Your task to perform on an android device: change alarm snooze length Image 0: 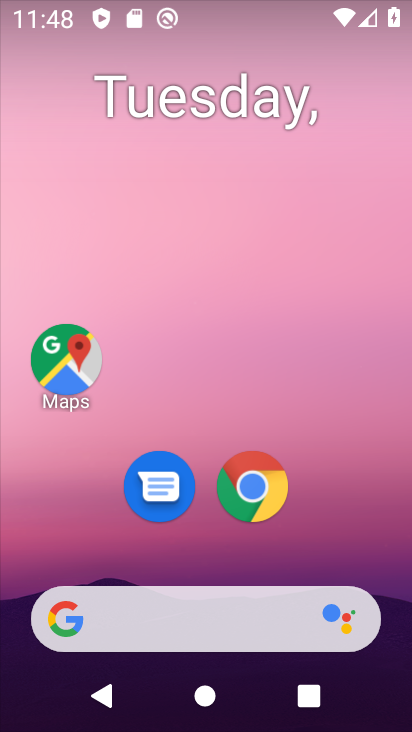
Step 0: drag from (84, 554) to (179, 187)
Your task to perform on an android device: change alarm snooze length Image 1: 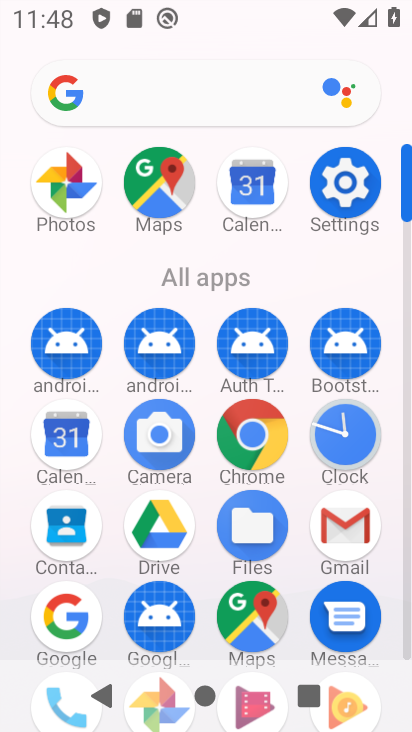
Step 1: click (356, 446)
Your task to perform on an android device: change alarm snooze length Image 2: 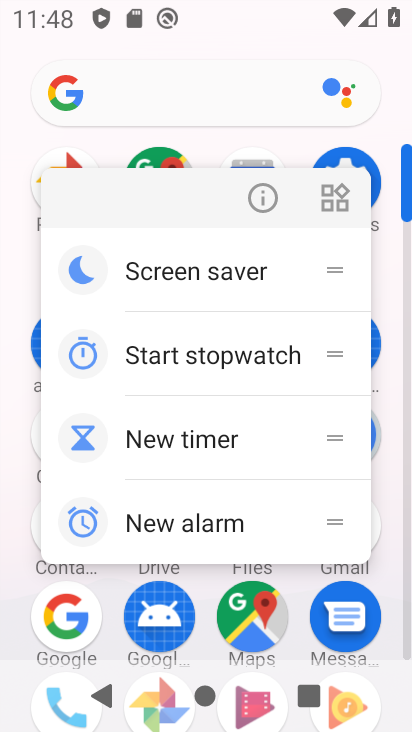
Step 2: press back button
Your task to perform on an android device: change alarm snooze length Image 3: 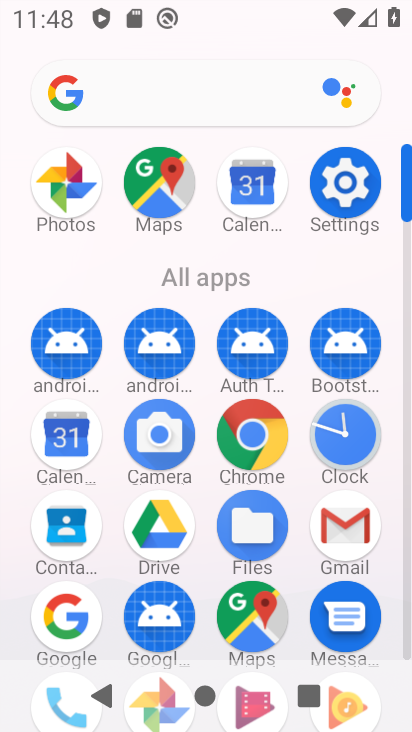
Step 3: click (368, 438)
Your task to perform on an android device: change alarm snooze length Image 4: 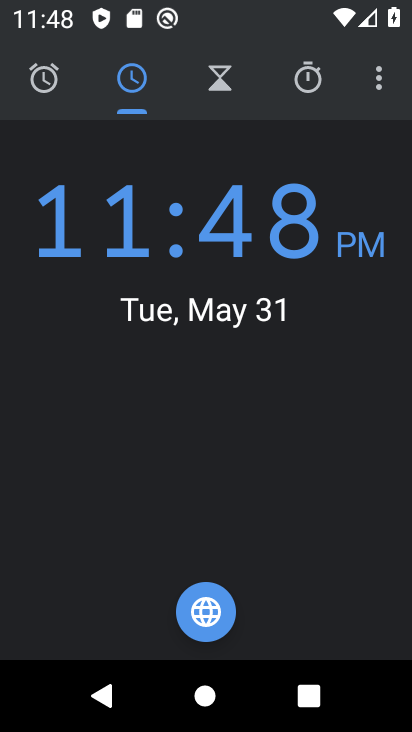
Step 4: click (405, 55)
Your task to perform on an android device: change alarm snooze length Image 5: 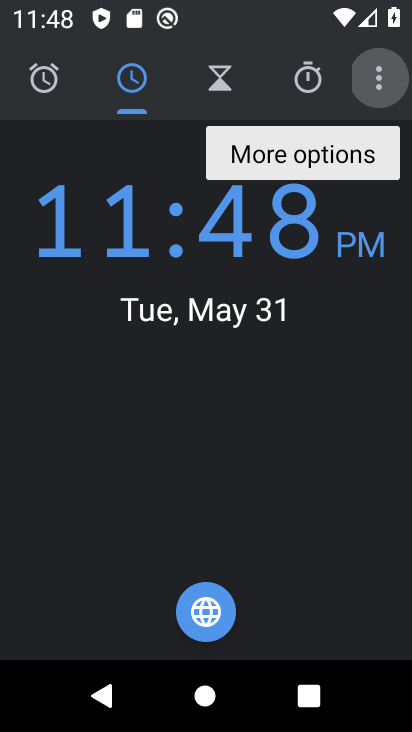
Step 5: click (384, 77)
Your task to perform on an android device: change alarm snooze length Image 6: 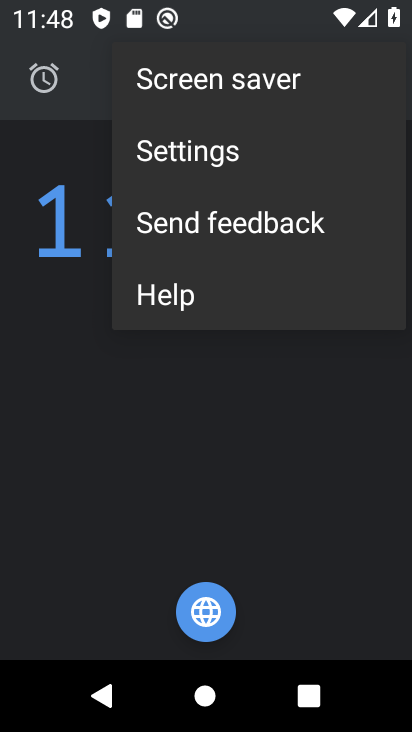
Step 6: click (353, 128)
Your task to perform on an android device: change alarm snooze length Image 7: 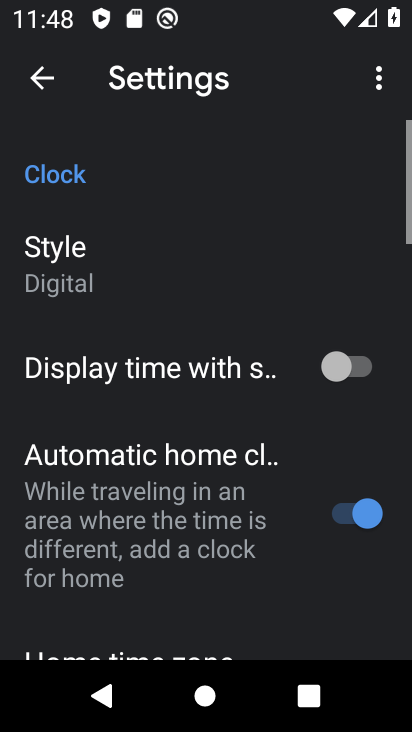
Step 7: drag from (267, 445) to (337, 69)
Your task to perform on an android device: change alarm snooze length Image 8: 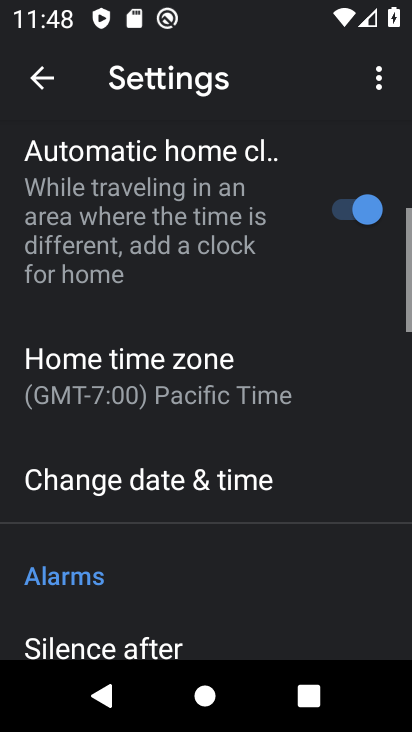
Step 8: drag from (244, 373) to (273, 82)
Your task to perform on an android device: change alarm snooze length Image 9: 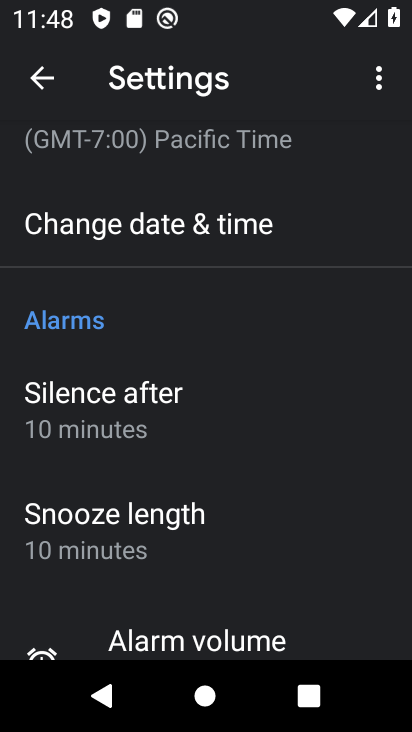
Step 9: click (266, 529)
Your task to perform on an android device: change alarm snooze length Image 10: 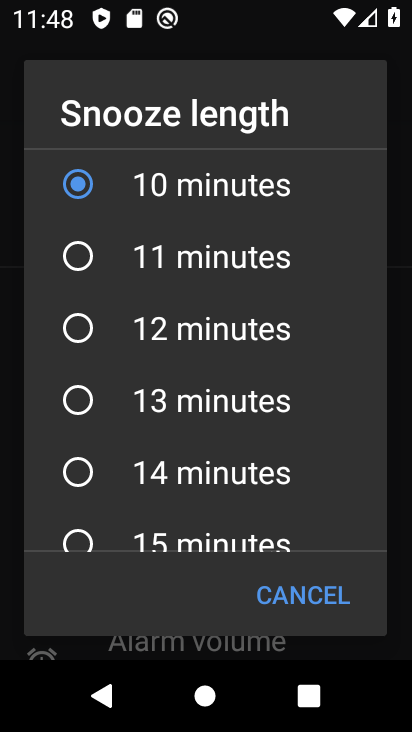
Step 10: click (198, 514)
Your task to perform on an android device: change alarm snooze length Image 11: 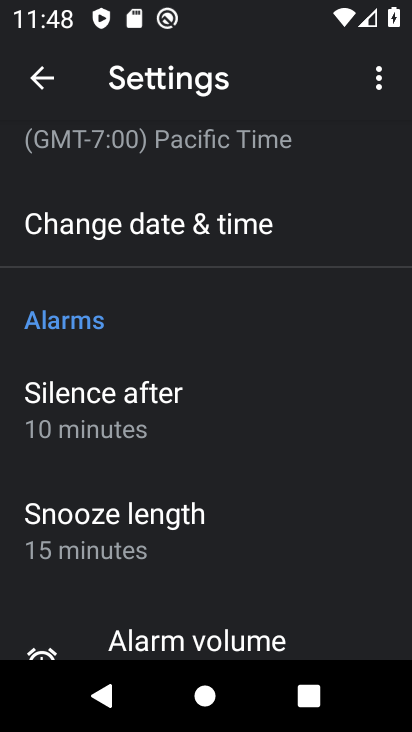
Step 11: task complete